Your task to perform on an android device: allow cookies in the chrome app Image 0: 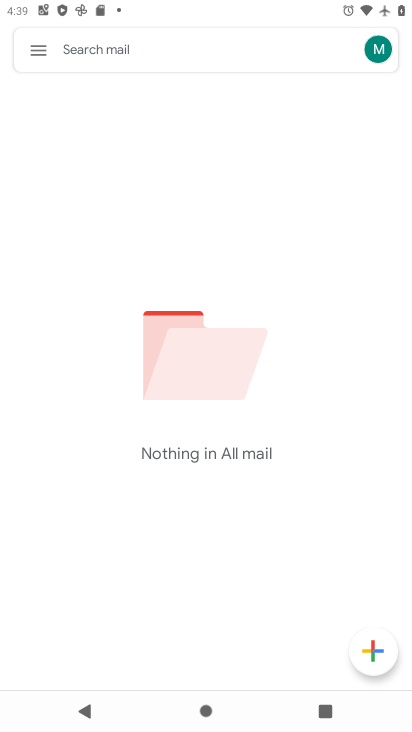
Step 0: press home button
Your task to perform on an android device: allow cookies in the chrome app Image 1: 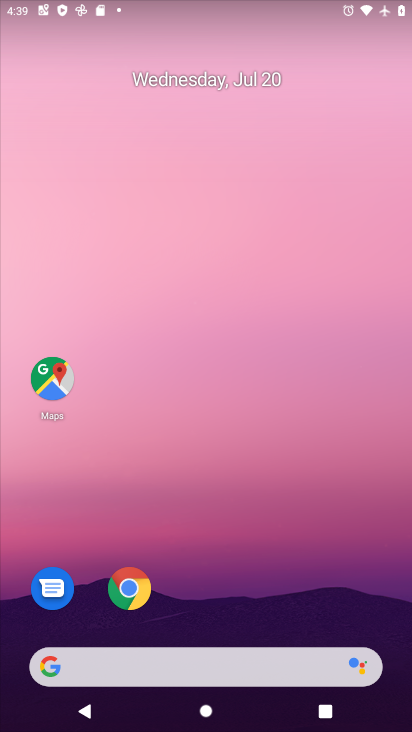
Step 1: drag from (273, 607) to (331, 158)
Your task to perform on an android device: allow cookies in the chrome app Image 2: 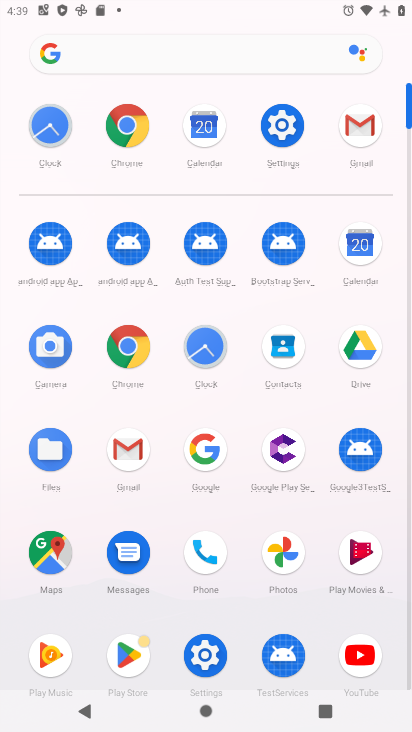
Step 2: click (129, 350)
Your task to perform on an android device: allow cookies in the chrome app Image 3: 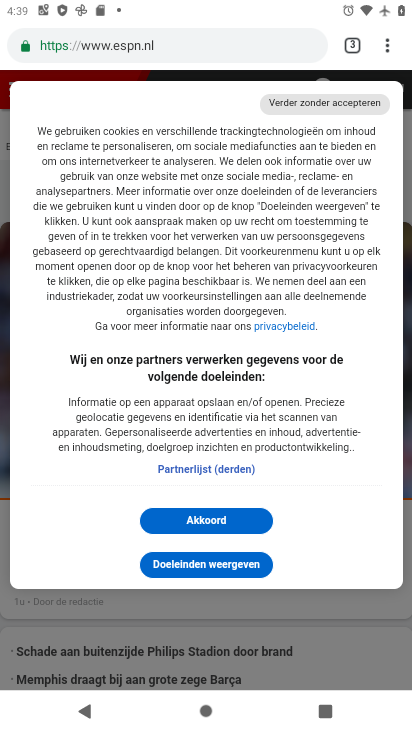
Step 3: drag from (384, 45) to (238, 547)
Your task to perform on an android device: allow cookies in the chrome app Image 4: 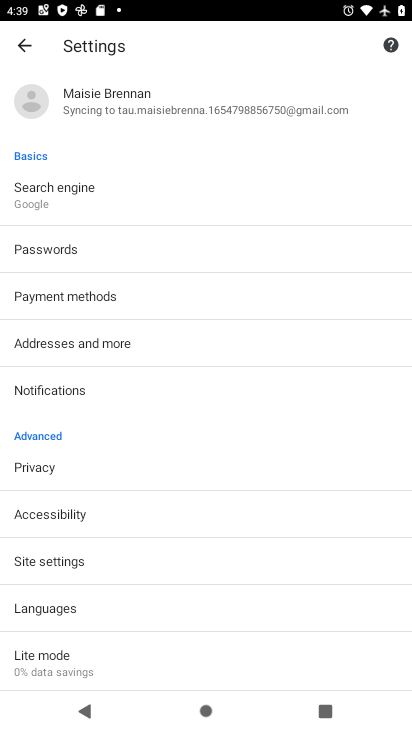
Step 4: click (120, 566)
Your task to perform on an android device: allow cookies in the chrome app Image 5: 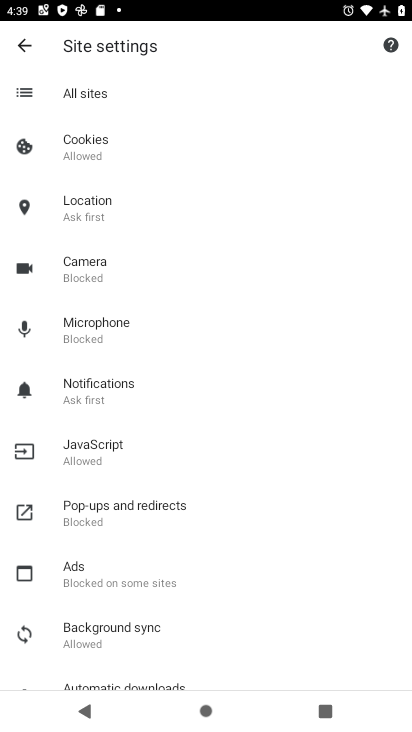
Step 5: click (83, 139)
Your task to perform on an android device: allow cookies in the chrome app Image 6: 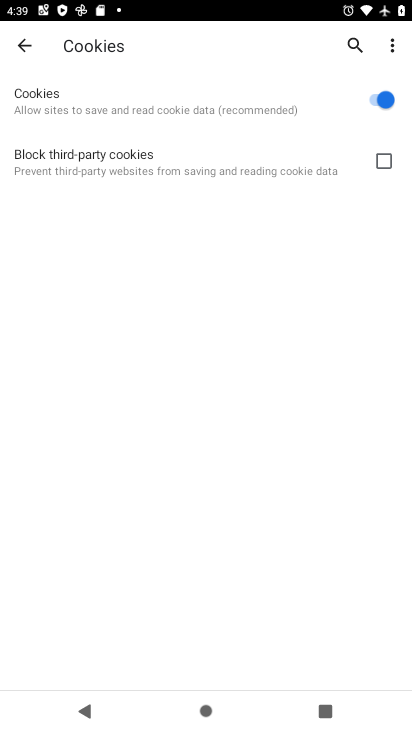
Step 6: task complete